Your task to perform on an android device: check storage Image 0: 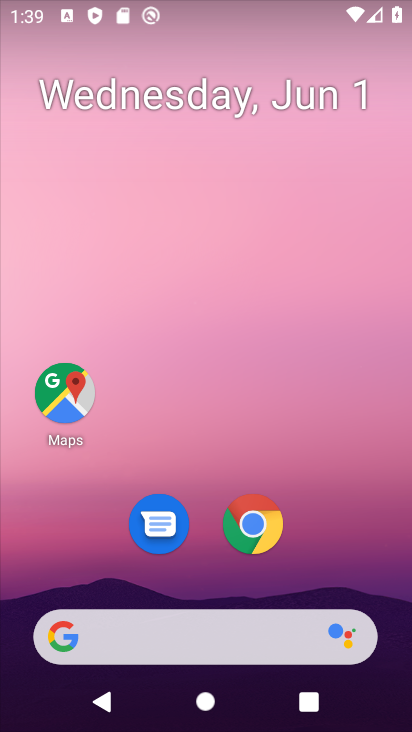
Step 0: drag from (351, 550) to (302, 63)
Your task to perform on an android device: check storage Image 1: 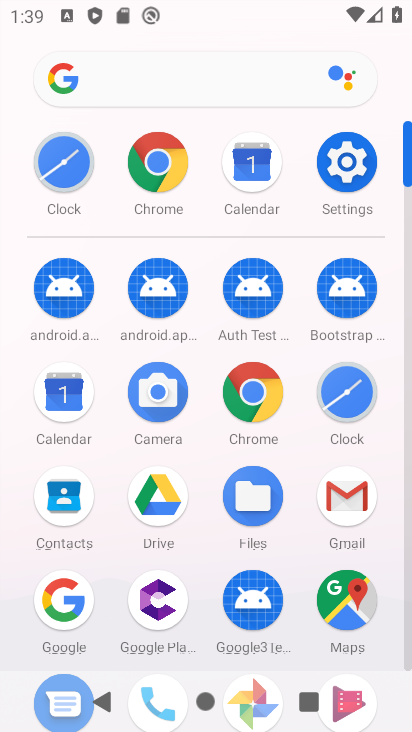
Step 1: click (347, 161)
Your task to perform on an android device: check storage Image 2: 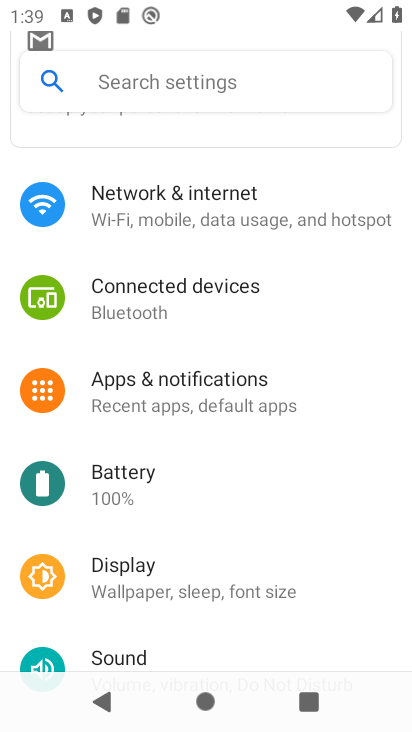
Step 2: drag from (217, 497) to (226, 194)
Your task to perform on an android device: check storage Image 3: 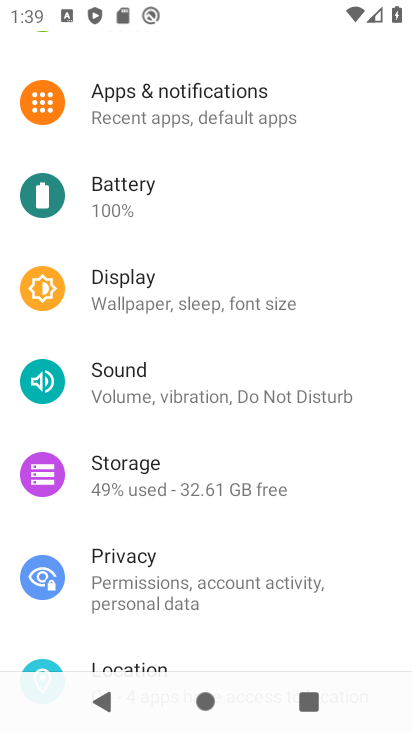
Step 3: click (217, 482)
Your task to perform on an android device: check storage Image 4: 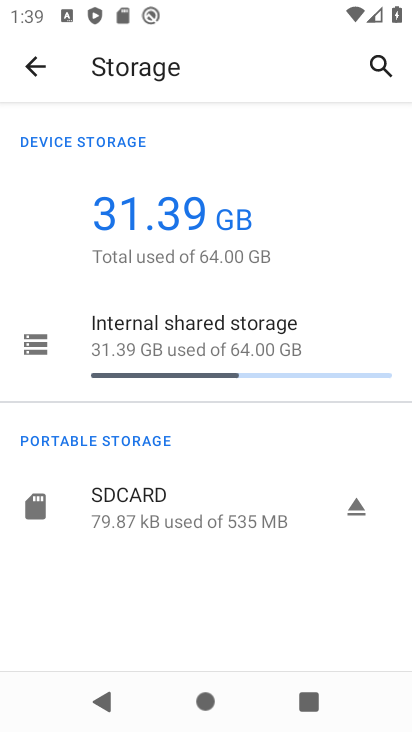
Step 4: task complete